Your task to perform on an android device: find snoozed emails in the gmail app Image 0: 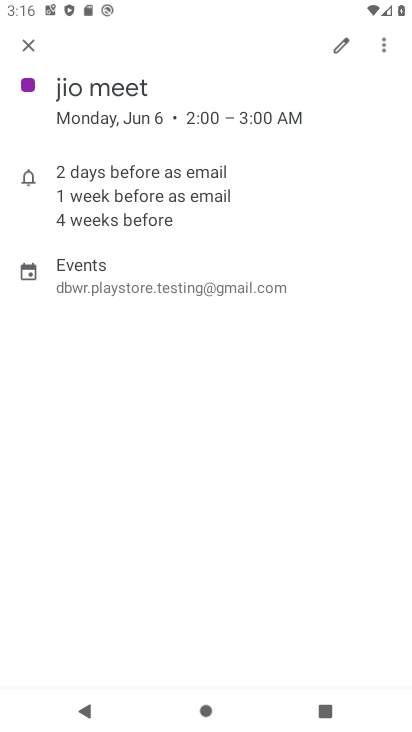
Step 0: press home button
Your task to perform on an android device: find snoozed emails in the gmail app Image 1: 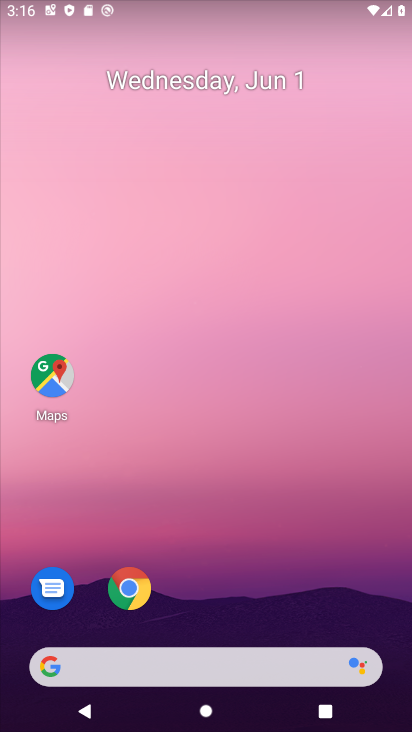
Step 1: drag from (327, 567) to (370, 64)
Your task to perform on an android device: find snoozed emails in the gmail app Image 2: 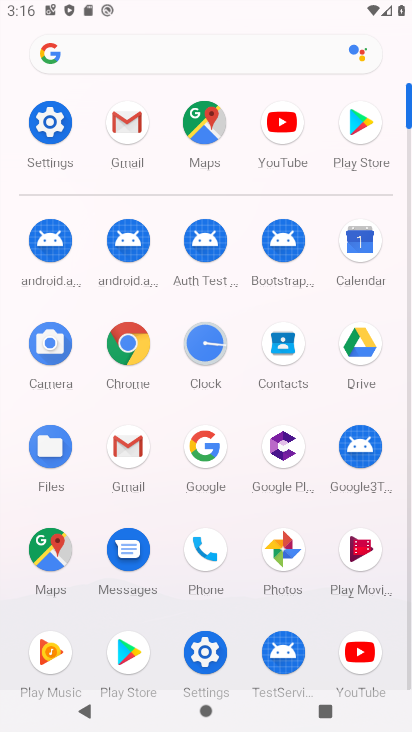
Step 2: click (126, 456)
Your task to perform on an android device: find snoozed emails in the gmail app Image 3: 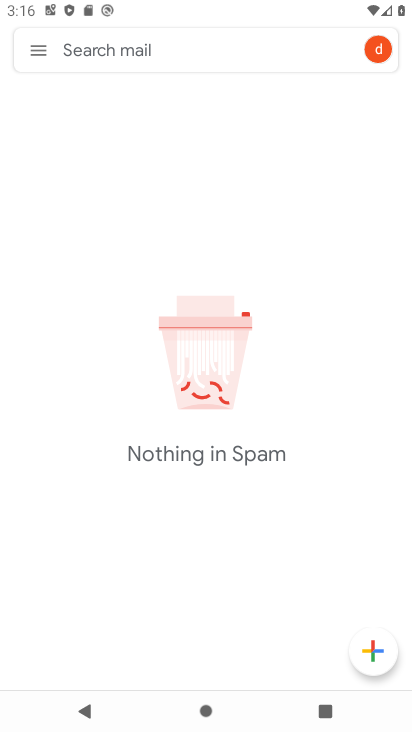
Step 3: click (48, 56)
Your task to perform on an android device: find snoozed emails in the gmail app Image 4: 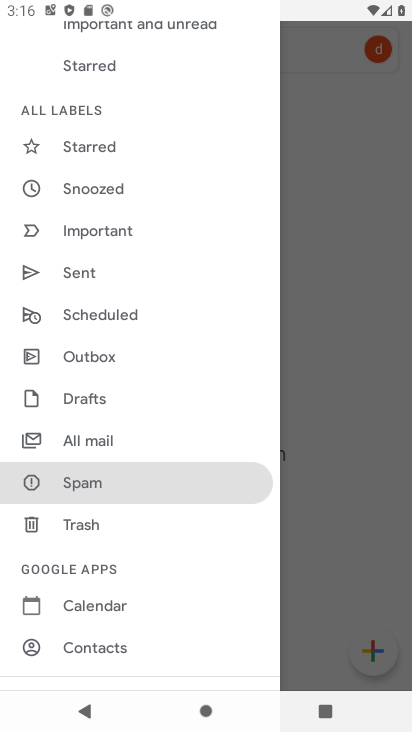
Step 4: click (118, 191)
Your task to perform on an android device: find snoozed emails in the gmail app Image 5: 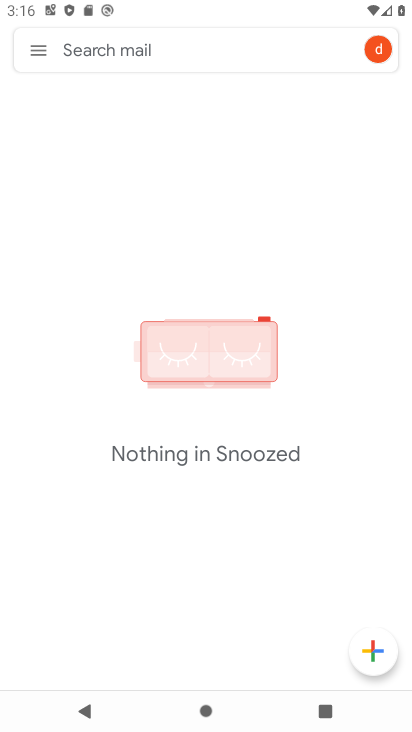
Step 5: task complete